Your task to perform on an android device: Go to ESPN.com Image 0: 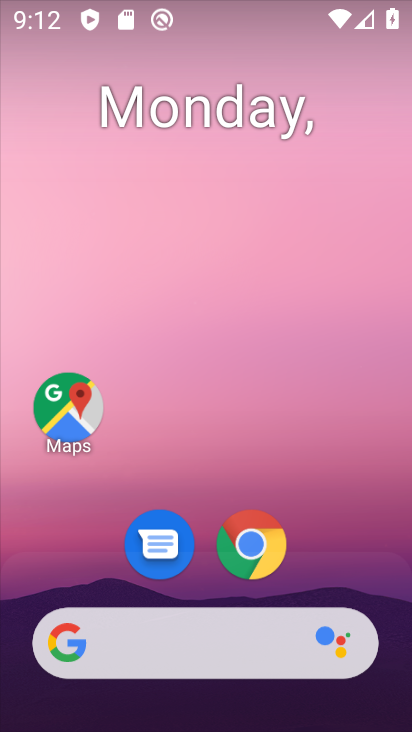
Step 0: drag from (373, 569) to (299, 118)
Your task to perform on an android device: Go to ESPN.com Image 1: 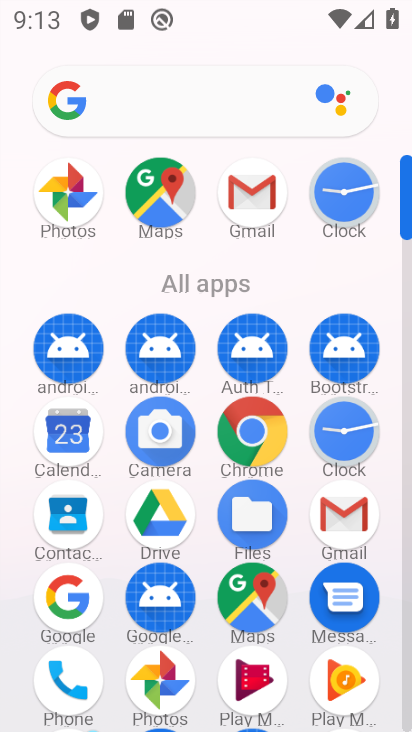
Step 1: click (268, 435)
Your task to perform on an android device: Go to ESPN.com Image 2: 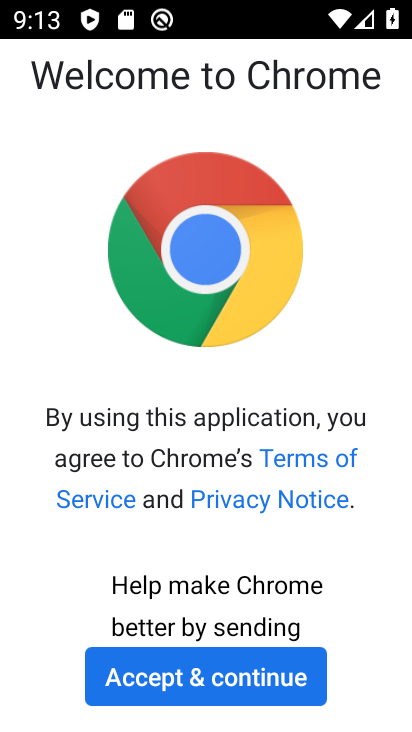
Step 2: click (266, 693)
Your task to perform on an android device: Go to ESPN.com Image 3: 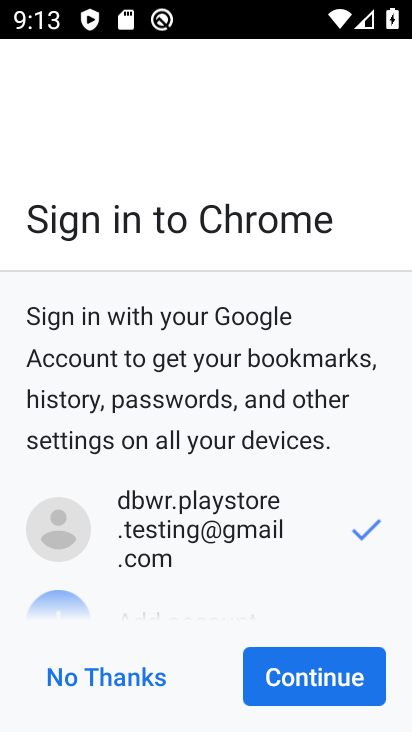
Step 3: click (343, 677)
Your task to perform on an android device: Go to ESPN.com Image 4: 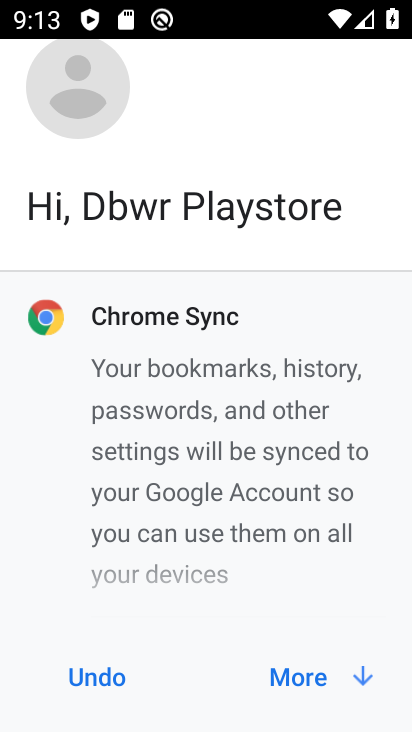
Step 4: click (343, 677)
Your task to perform on an android device: Go to ESPN.com Image 5: 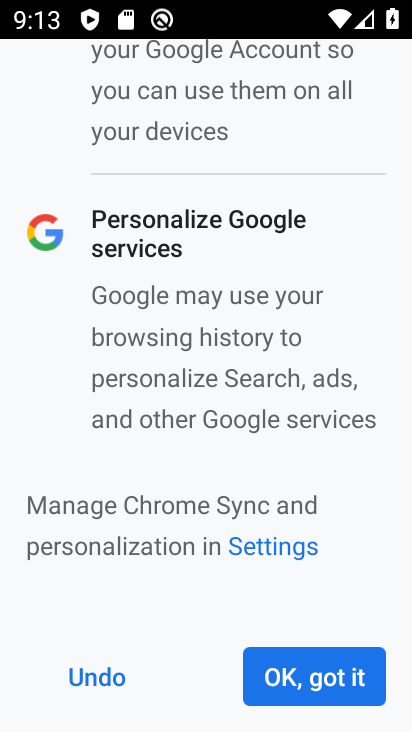
Step 5: click (343, 677)
Your task to perform on an android device: Go to ESPN.com Image 6: 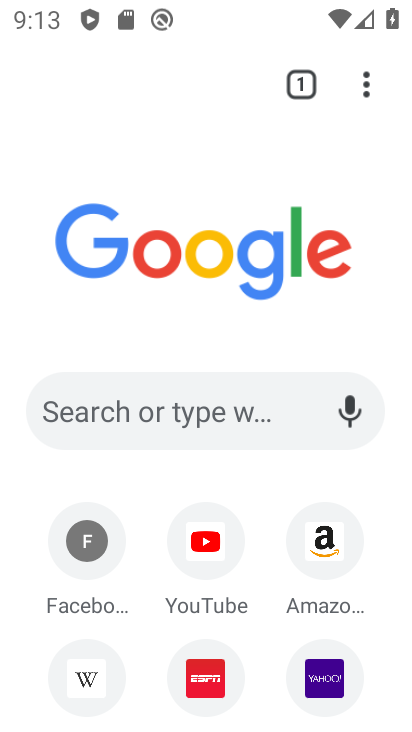
Step 6: click (234, 679)
Your task to perform on an android device: Go to ESPN.com Image 7: 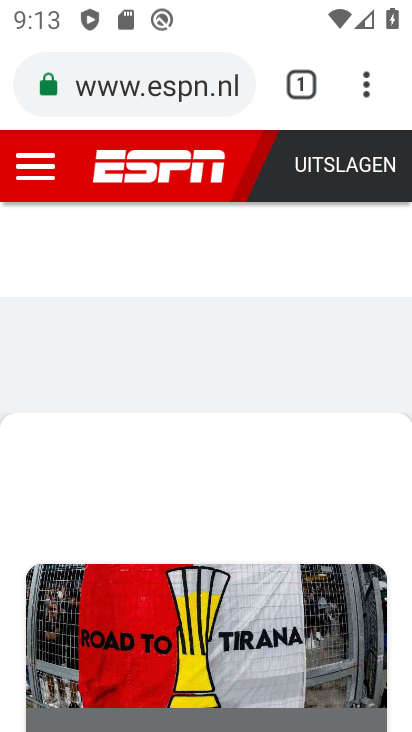
Step 7: task complete